Your task to perform on an android device: read, delete, or share a saved page in the chrome app Image 0: 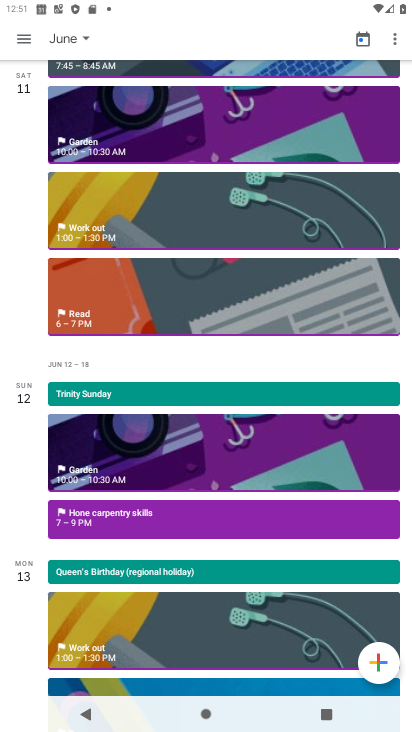
Step 0: press home button
Your task to perform on an android device: read, delete, or share a saved page in the chrome app Image 1: 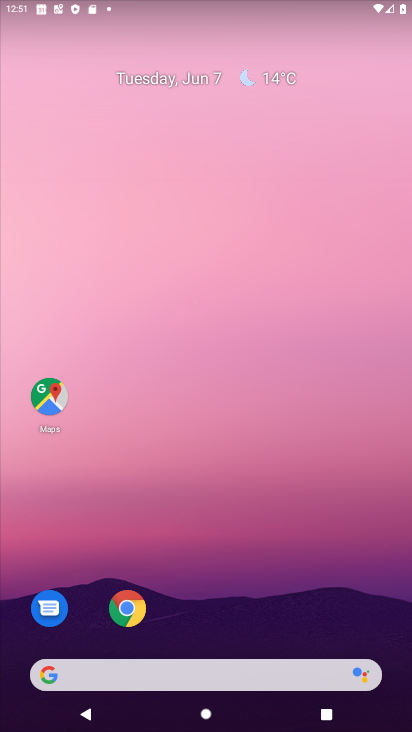
Step 1: click (125, 610)
Your task to perform on an android device: read, delete, or share a saved page in the chrome app Image 2: 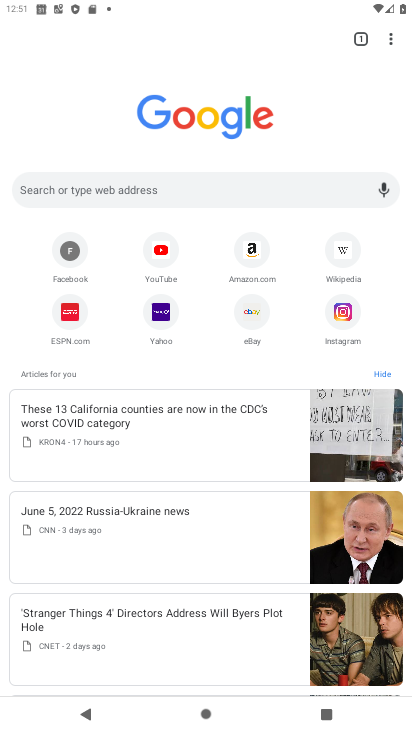
Step 2: task complete